Your task to perform on an android device: turn on sleep mode Image 0: 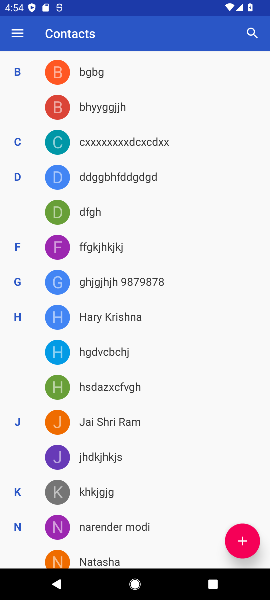
Step 0: press home button
Your task to perform on an android device: turn on sleep mode Image 1: 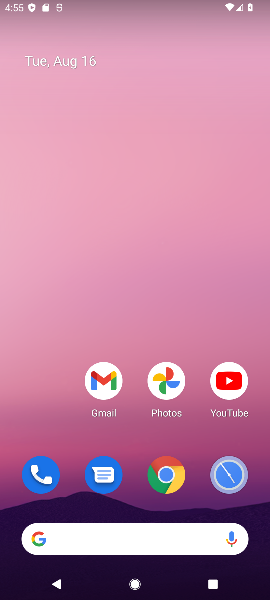
Step 1: drag from (202, 496) to (105, 37)
Your task to perform on an android device: turn on sleep mode Image 2: 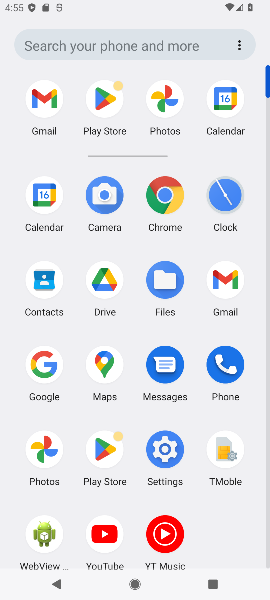
Step 2: click (150, 459)
Your task to perform on an android device: turn on sleep mode Image 3: 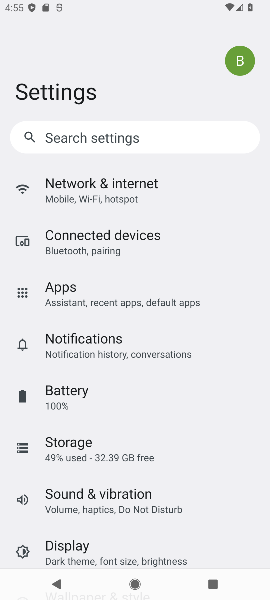
Step 3: task complete